Your task to perform on an android device: turn off location Image 0: 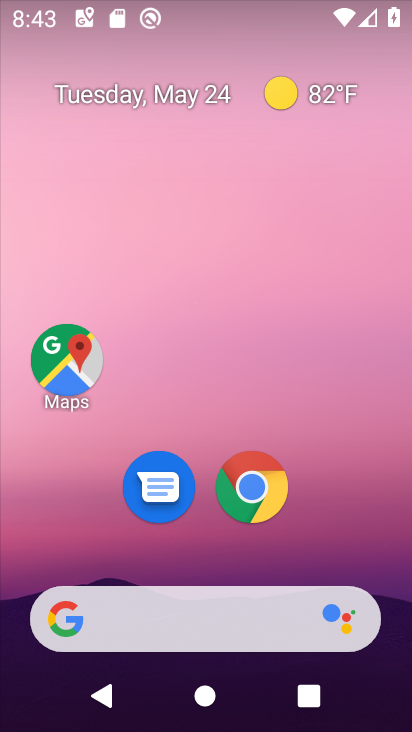
Step 0: drag from (372, 509) to (337, 119)
Your task to perform on an android device: turn off location Image 1: 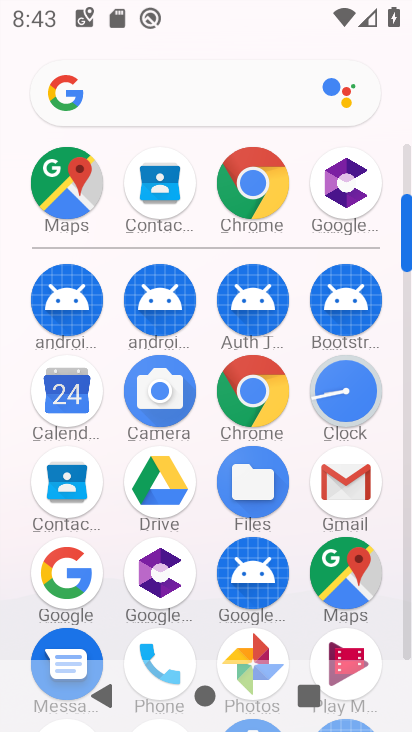
Step 1: drag from (290, 547) to (297, 257)
Your task to perform on an android device: turn off location Image 2: 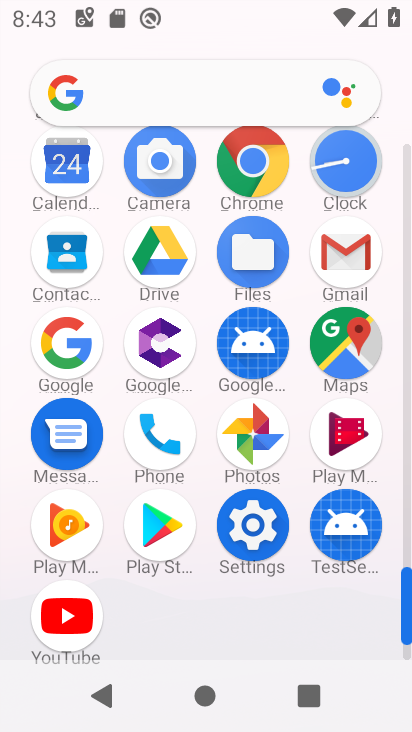
Step 2: click (247, 527)
Your task to perform on an android device: turn off location Image 3: 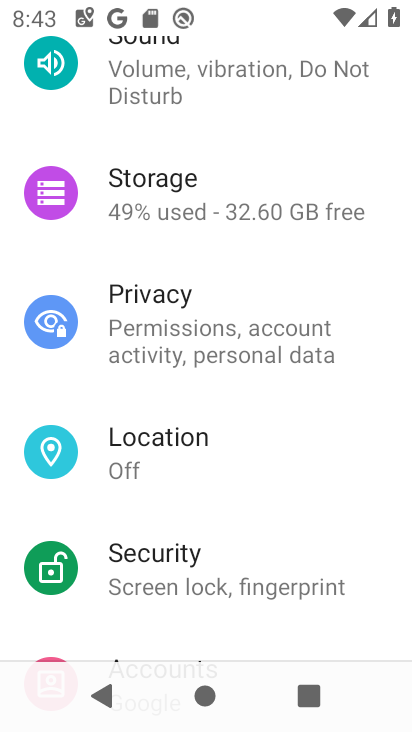
Step 3: click (177, 442)
Your task to perform on an android device: turn off location Image 4: 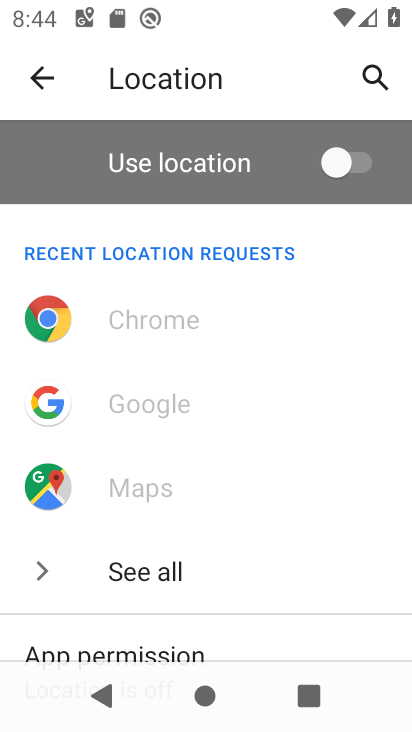
Step 4: task complete